Your task to perform on an android device: Turn off the flashlight Image 0: 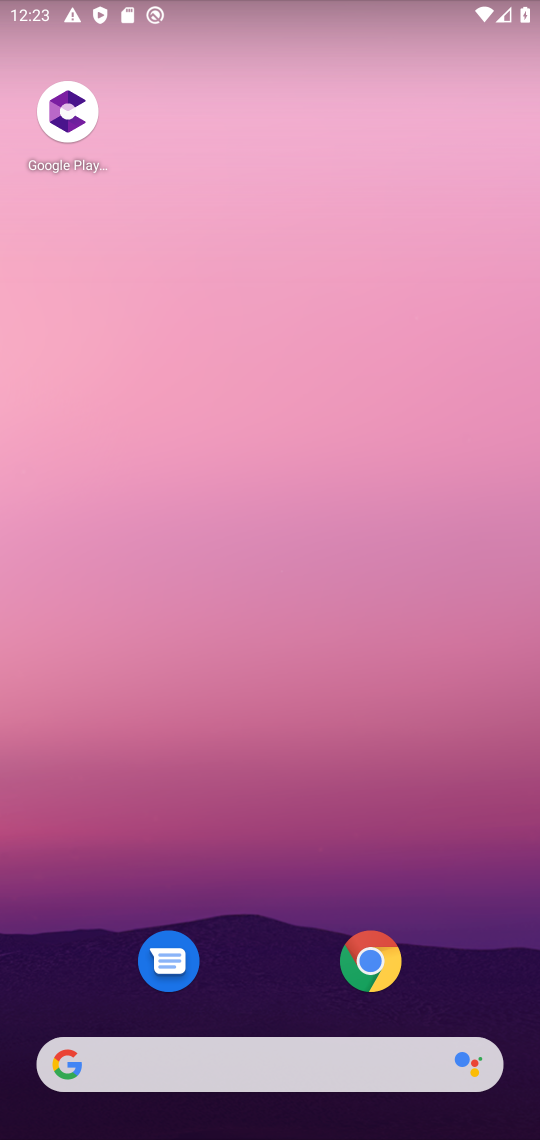
Step 0: drag from (236, 967) to (255, 9)
Your task to perform on an android device: Turn off the flashlight Image 1: 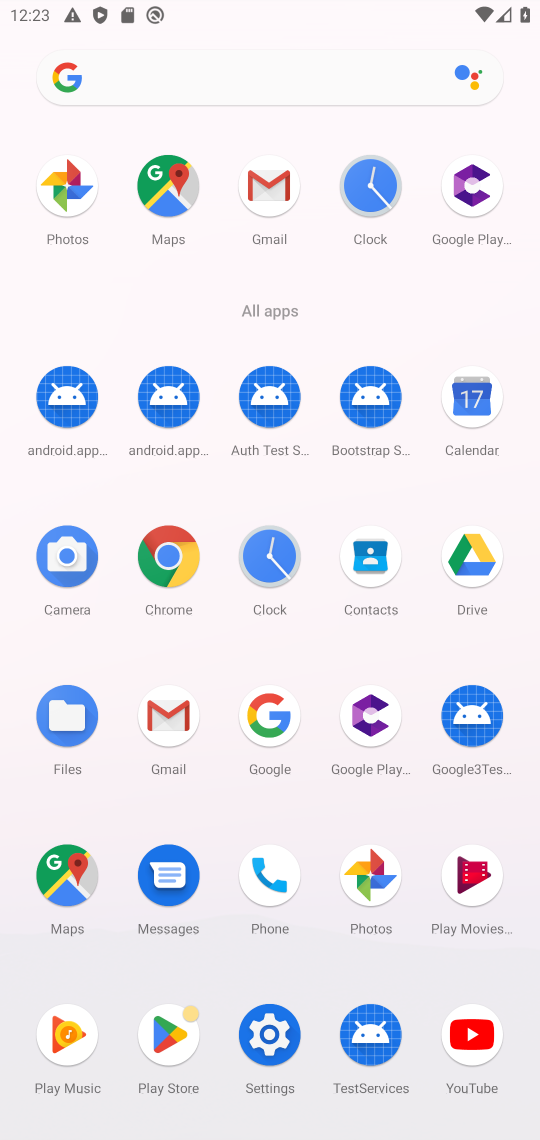
Step 1: task complete